Your task to perform on an android device: Go to accessibility settings Image 0: 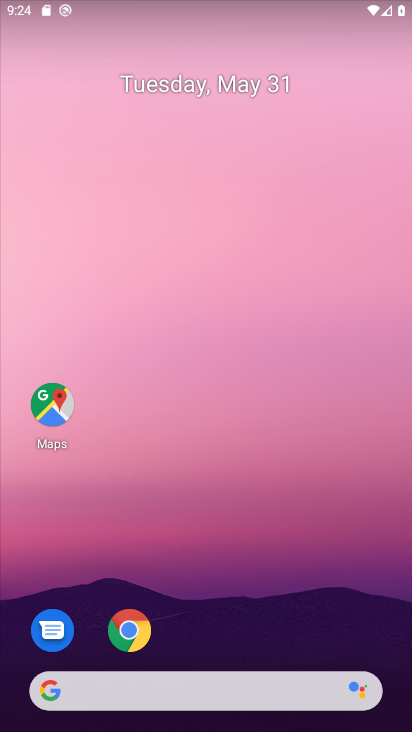
Step 0: drag from (237, 657) to (203, 172)
Your task to perform on an android device: Go to accessibility settings Image 1: 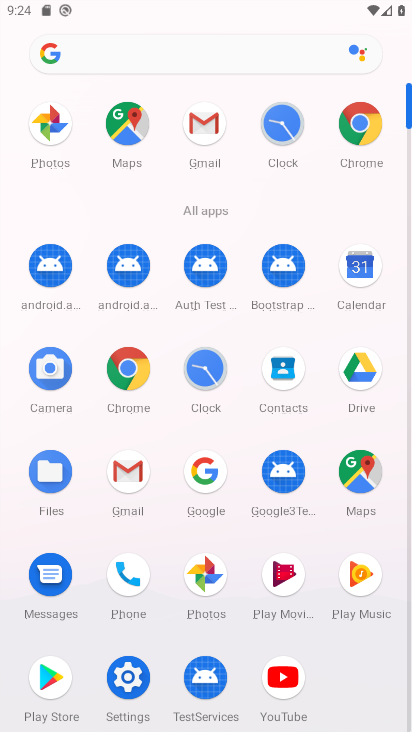
Step 1: click (139, 684)
Your task to perform on an android device: Go to accessibility settings Image 2: 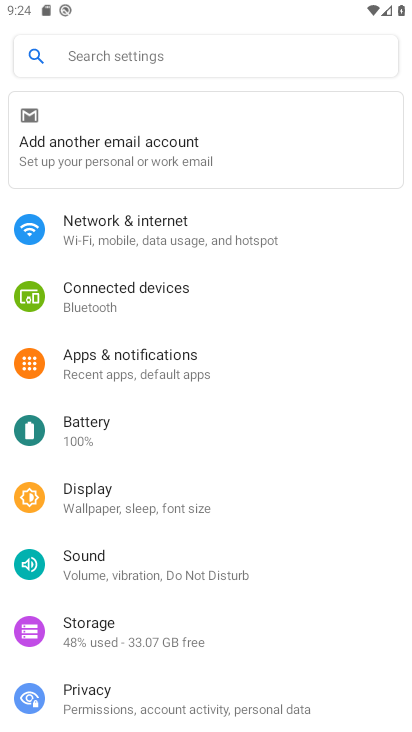
Step 2: drag from (208, 628) to (200, 287)
Your task to perform on an android device: Go to accessibility settings Image 3: 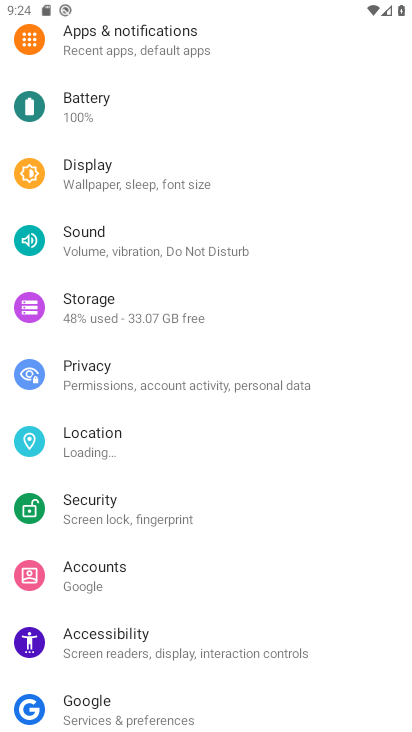
Step 3: click (180, 639)
Your task to perform on an android device: Go to accessibility settings Image 4: 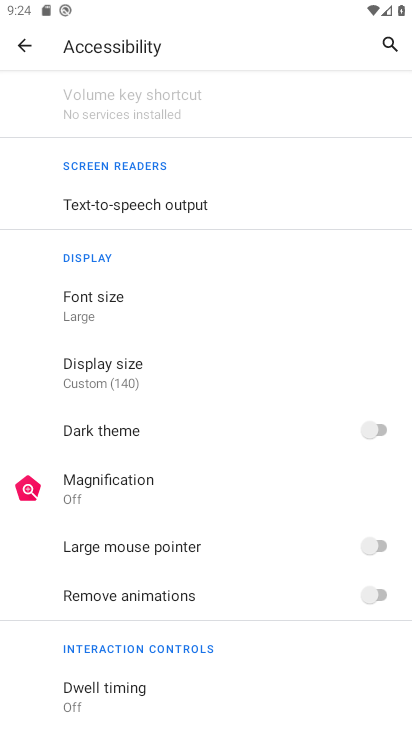
Step 4: task complete